Your task to perform on an android device: What's the weather today? Image 0: 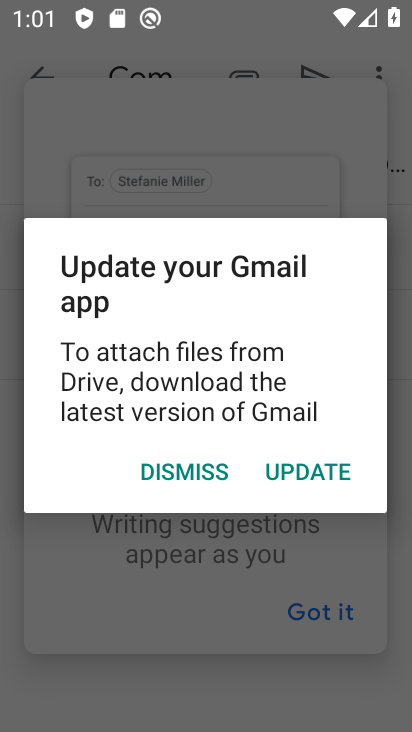
Step 0: press home button
Your task to perform on an android device: What's the weather today? Image 1: 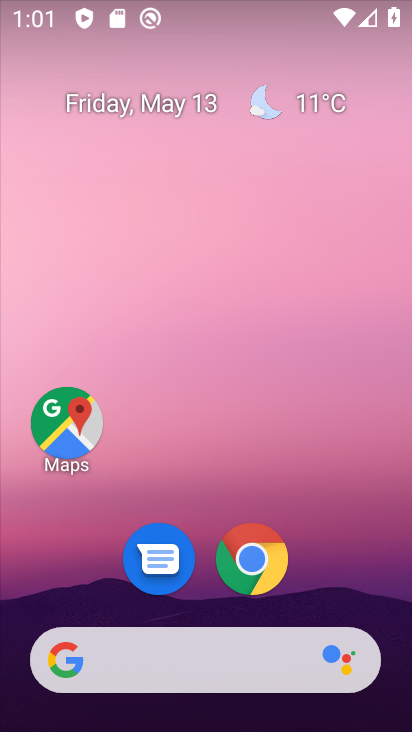
Step 1: click (311, 106)
Your task to perform on an android device: What's the weather today? Image 2: 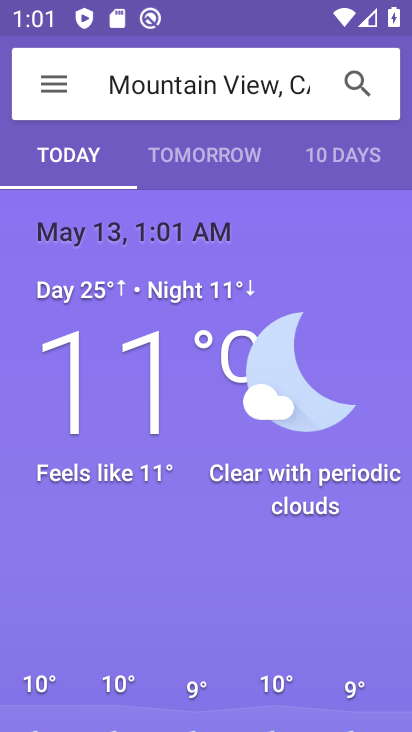
Step 2: task complete